Your task to perform on an android device: open a new tab in the chrome app Image 0: 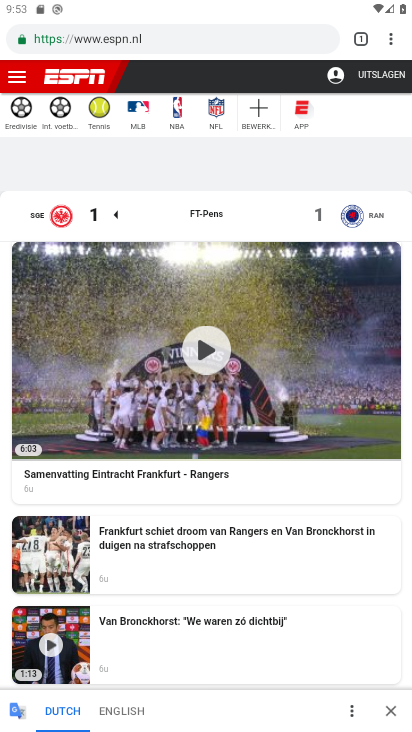
Step 0: press home button
Your task to perform on an android device: open a new tab in the chrome app Image 1: 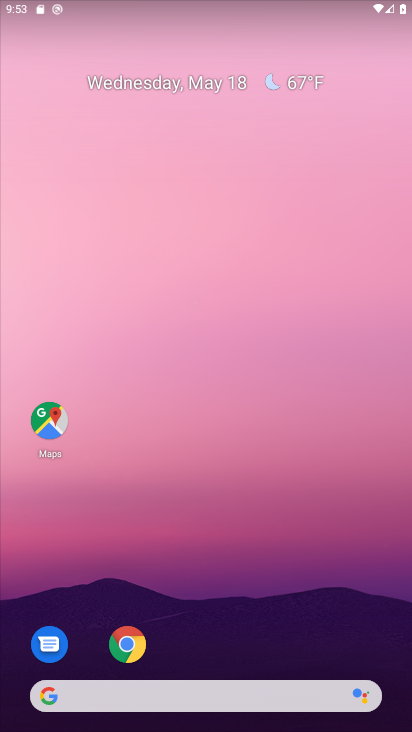
Step 1: click (128, 643)
Your task to perform on an android device: open a new tab in the chrome app Image 2: 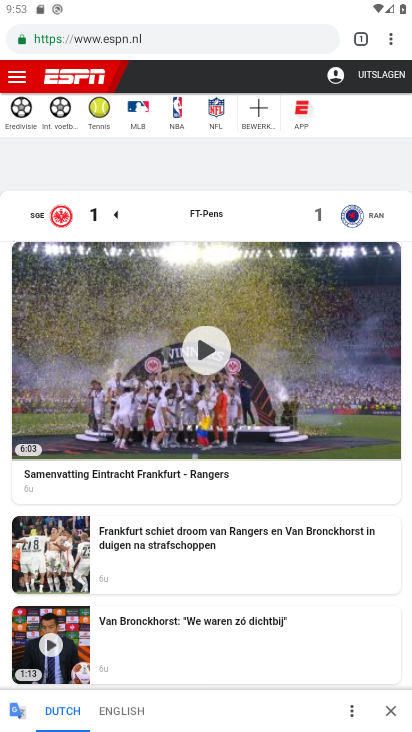
Step 2: click (391, 39)
Your task to perform on an android device: open a new tab in the chrome app Image 3: 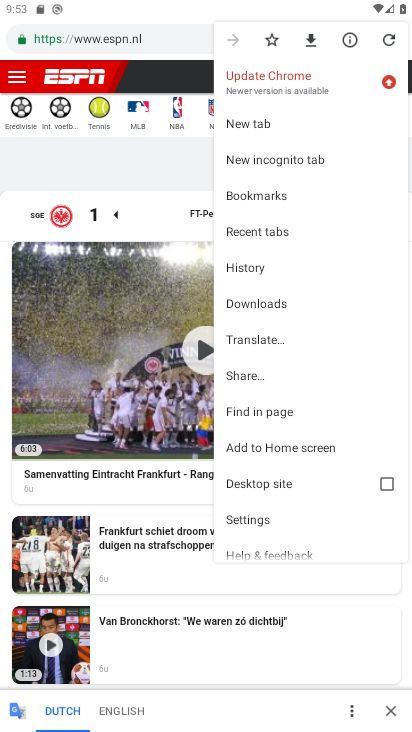
Step 3: click (264, 126)
Your task to perform on an android device: open a new tab in the chrome app Image 4: 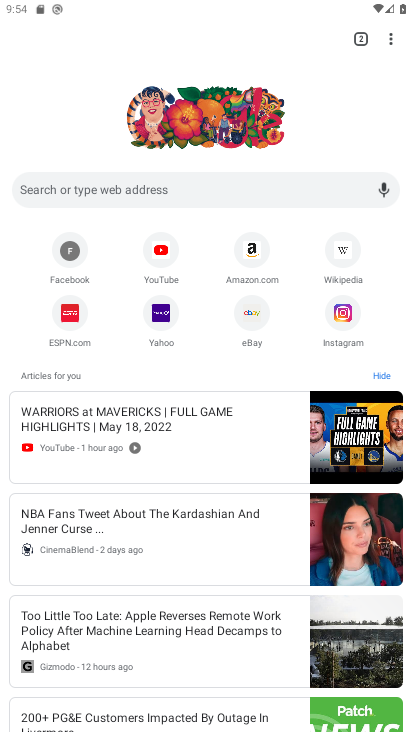
Step 4: task complete